Your task to perform on an android device: Go to privacy settings Image 0: 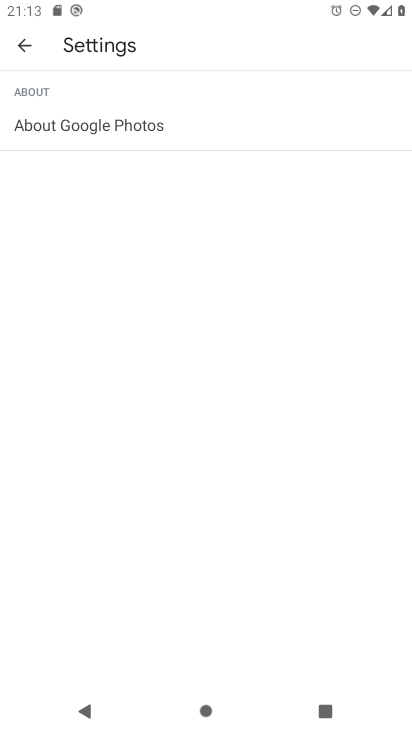
Step 0: press home button
Your task to perform on an android device: Go to privacy settings Image 1: 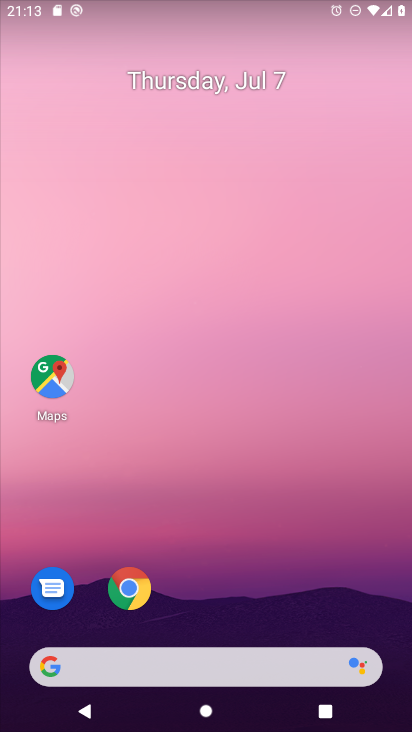
Step 1: drag from (224, 616) to (233, 181)
Your task to perform on an android device: Go to privacy settings Image 2: 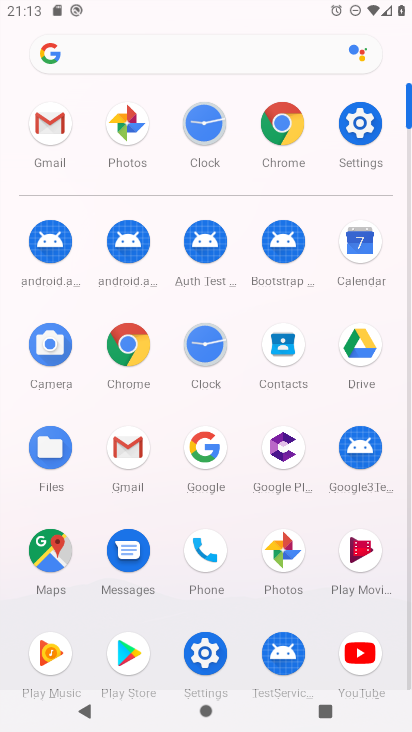
Step 2: click (347, 125)
Your task to perform on an android device: Go to privacy settings Image 3: 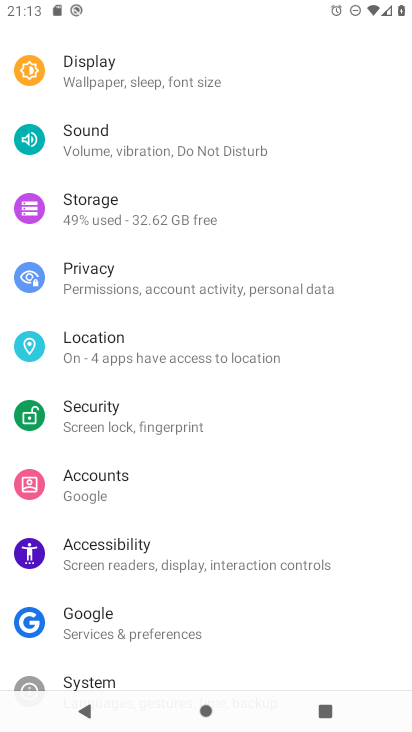
Step 3: click (125, 264)
Your task to perform on an android device: Go to privacy settings Image 4: 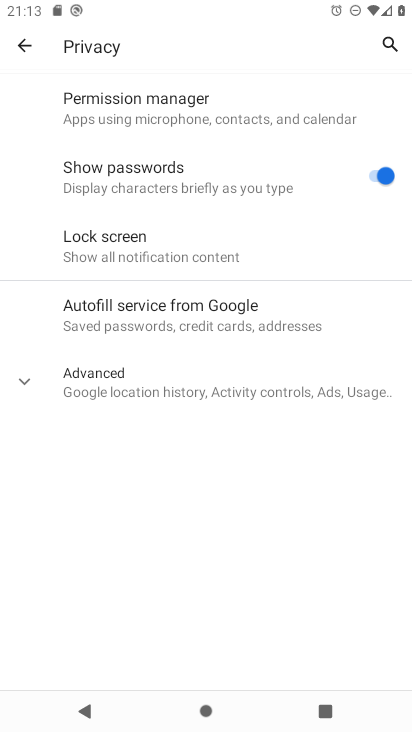
Step 4: task complete